Your task to perform on an android device: Add jbl charge 4 to the cart on walmart Image 0: 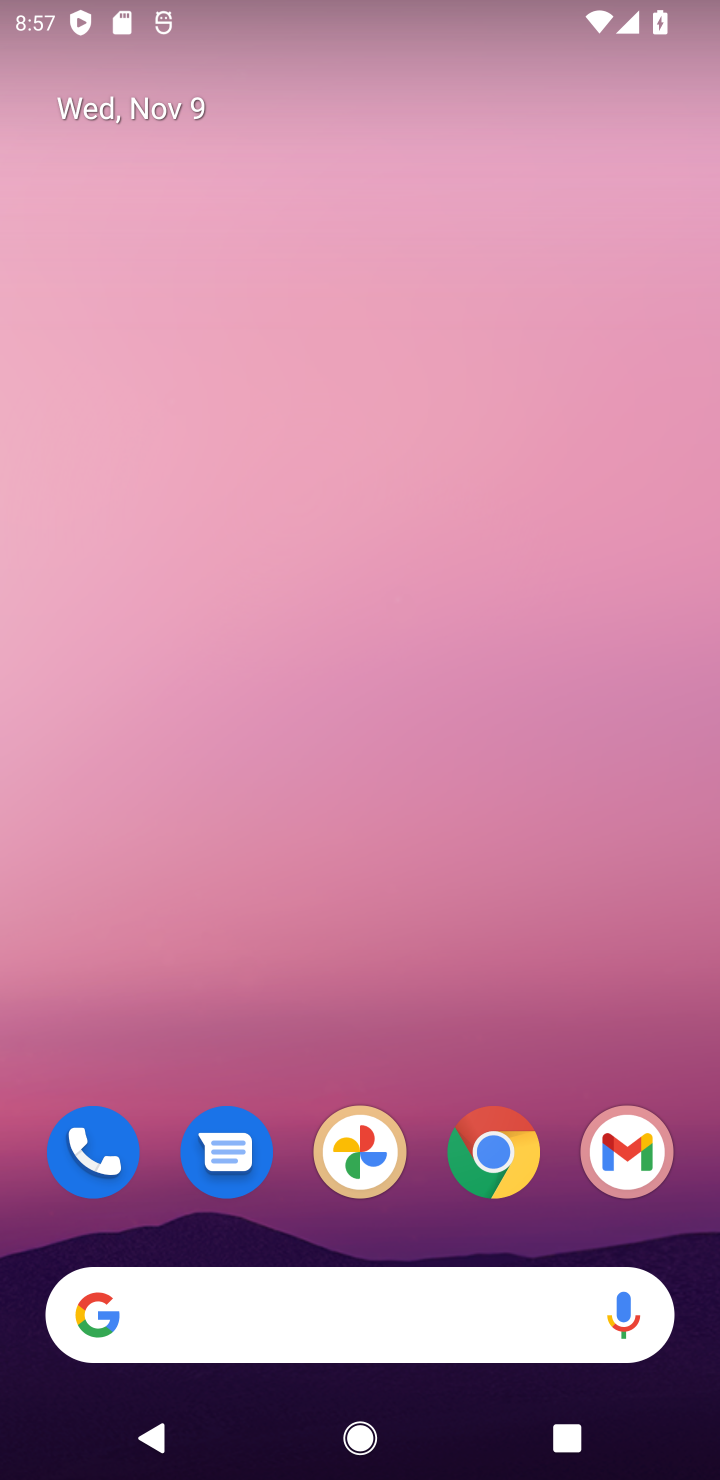
Step 0: click (477, 1146)
Your task to perform on an android device: Add jbl charge 4 to the cart on walmart Image 1: 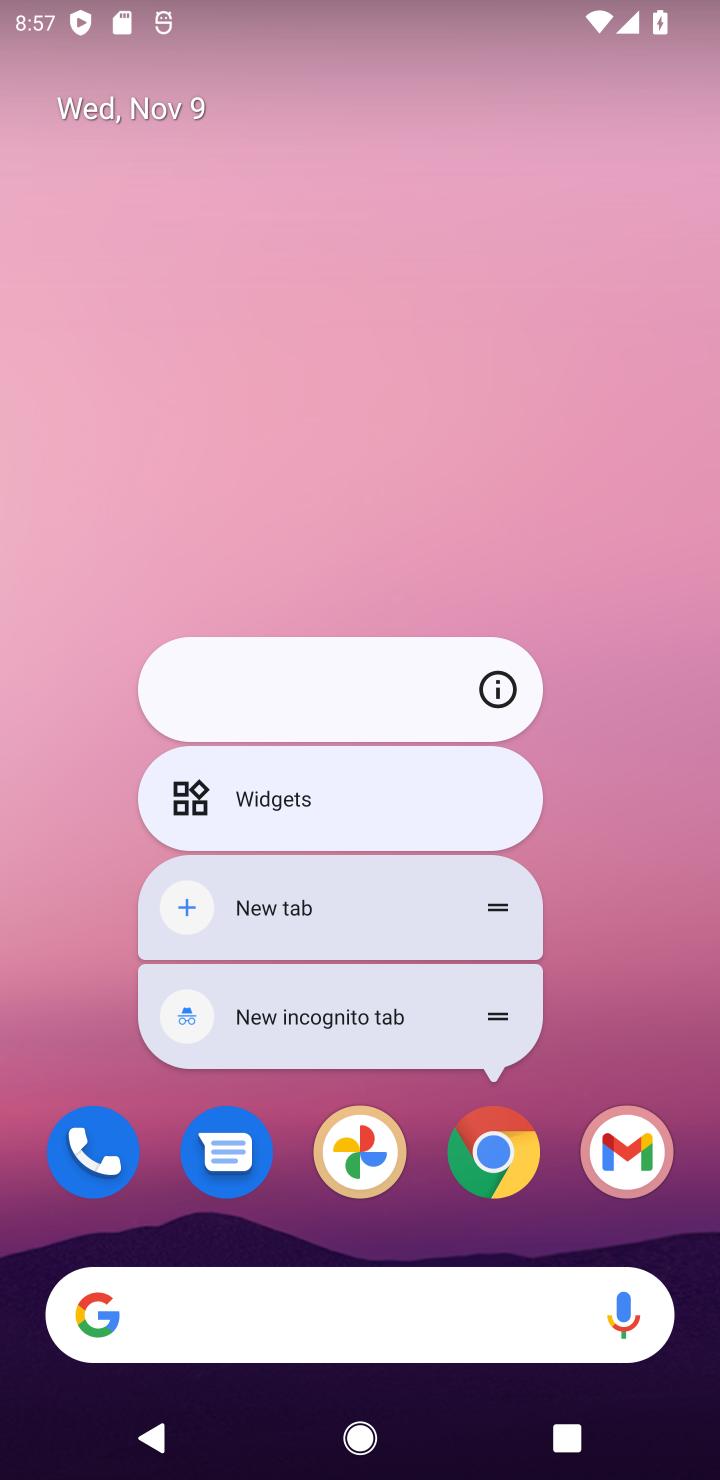
Step 1: click (477, 1153)
Your task to perform on an android device: Add jbl charge 4 to the cart on walmart Image 2: 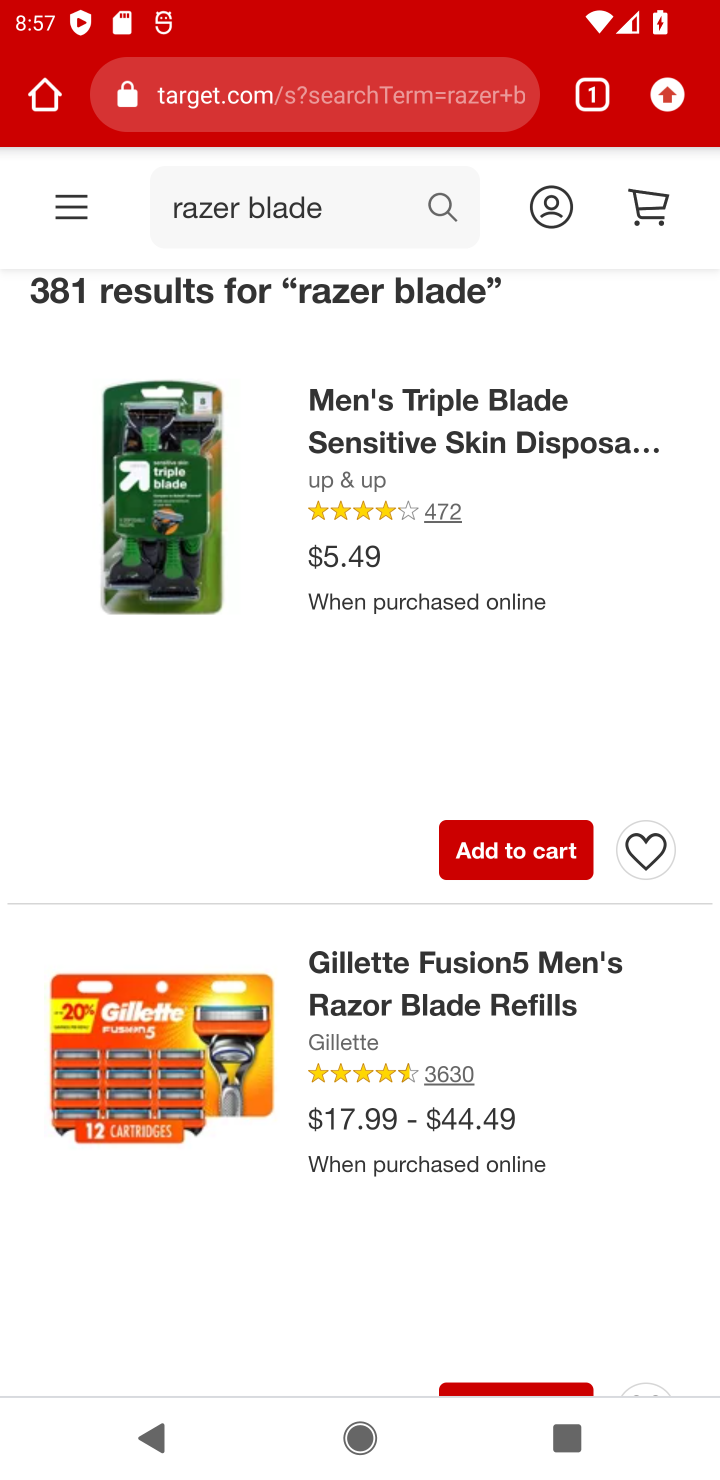
Step 2: click (144, 90)
Your task to perform on an android device: Add jbl charge 4 to the cart on walmart Image 3: 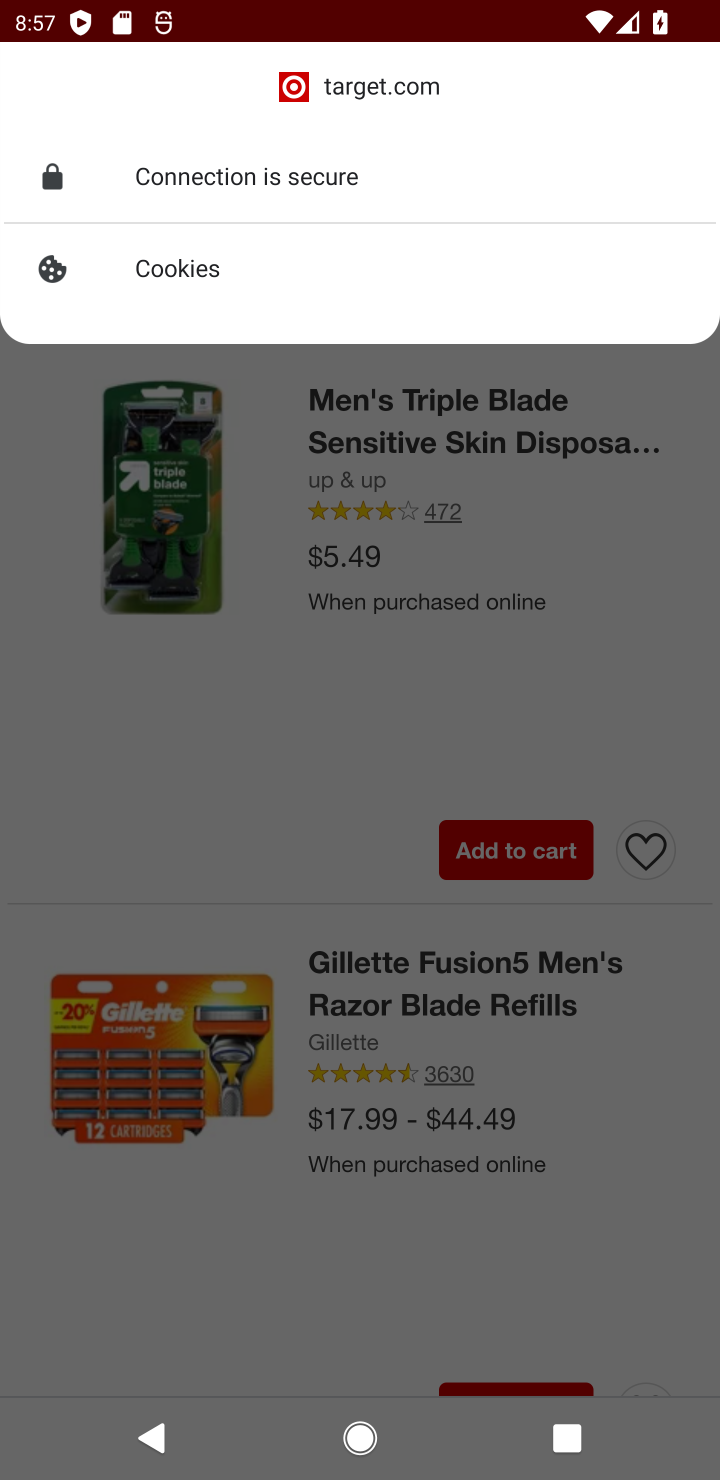
Step 3: drag from (62, 738) to (146, 294)
Your task to perform on an android device: Add jbl charge 4 to the cart on walmart Image 4: 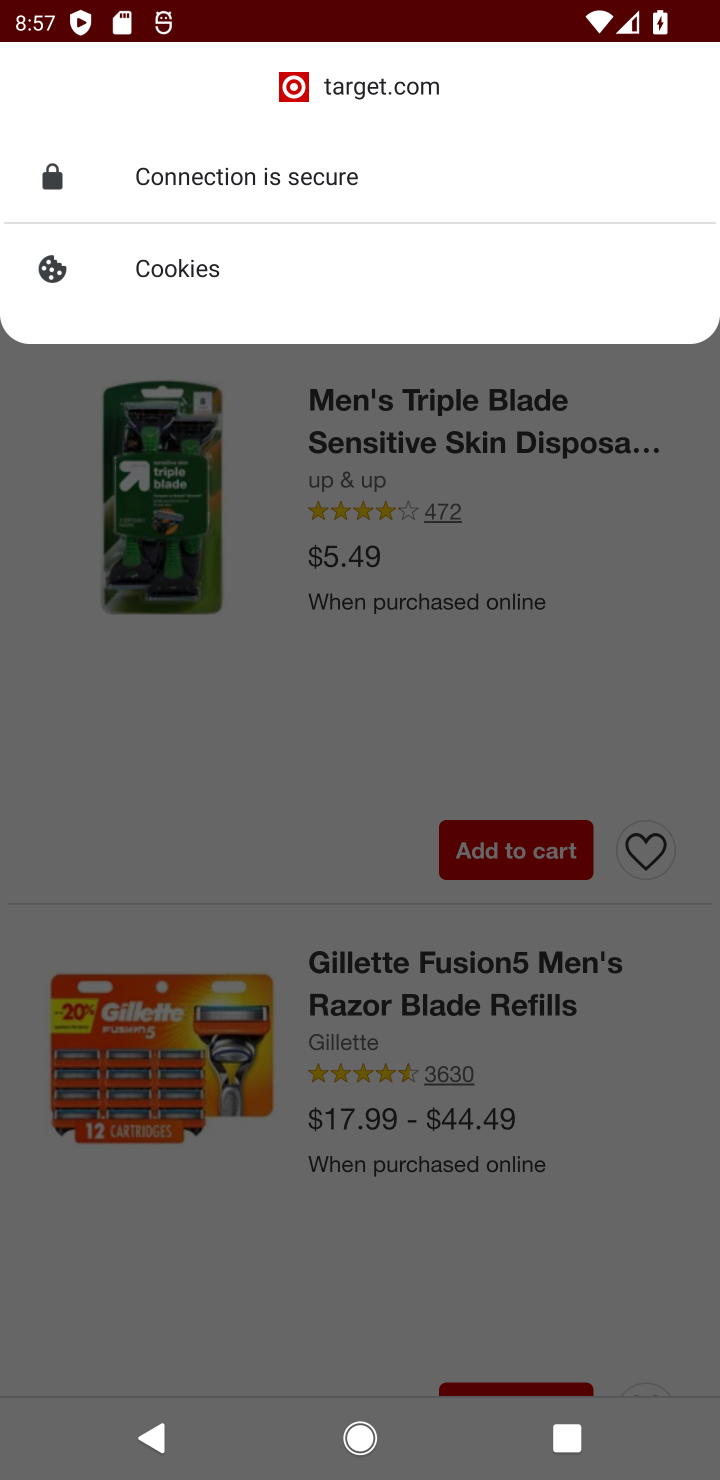
Step 4: click (677, 391)
Your task to perform on an android device: Add jbl charge 4 to the cart on walmart Image 5: 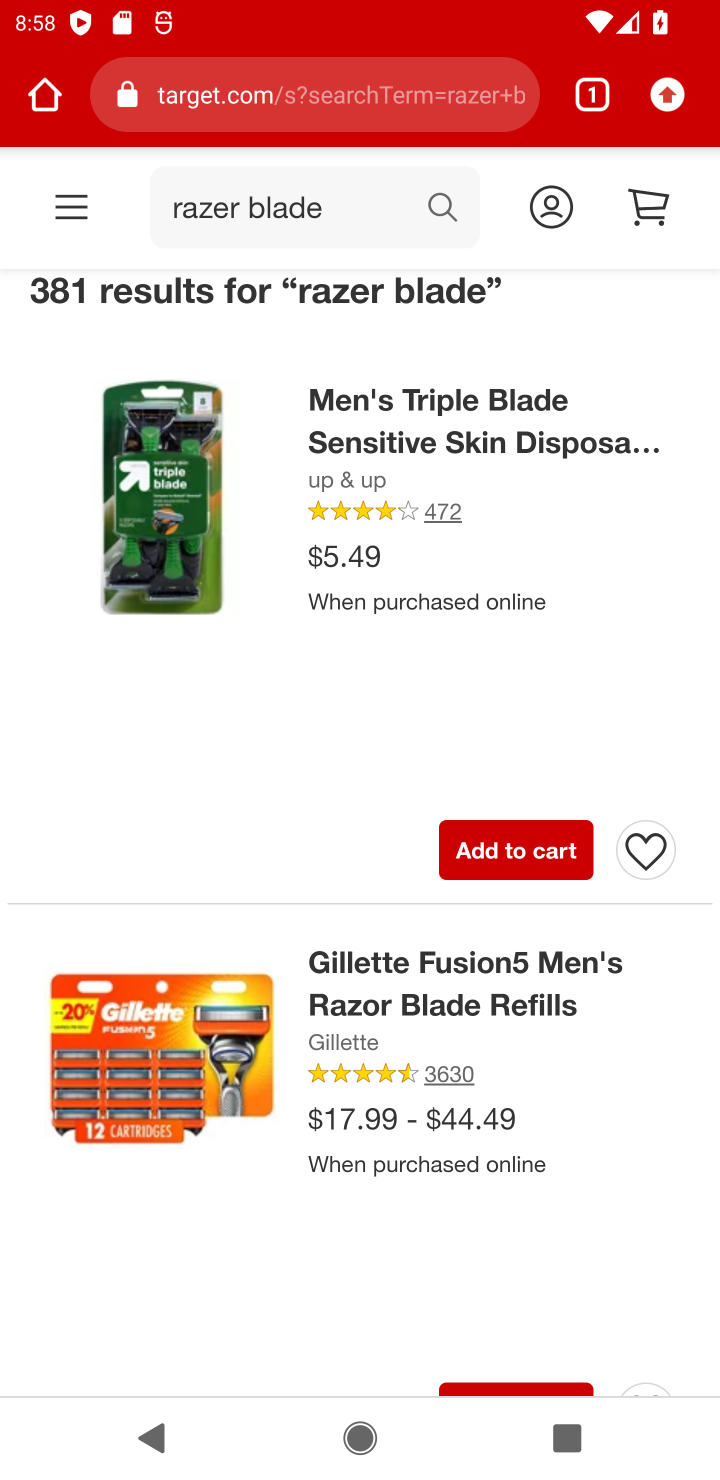
Step 5: click (424, 93)
Your task to perform on an android device: Add jbl charge 4 to the cart on walmart Image 6: 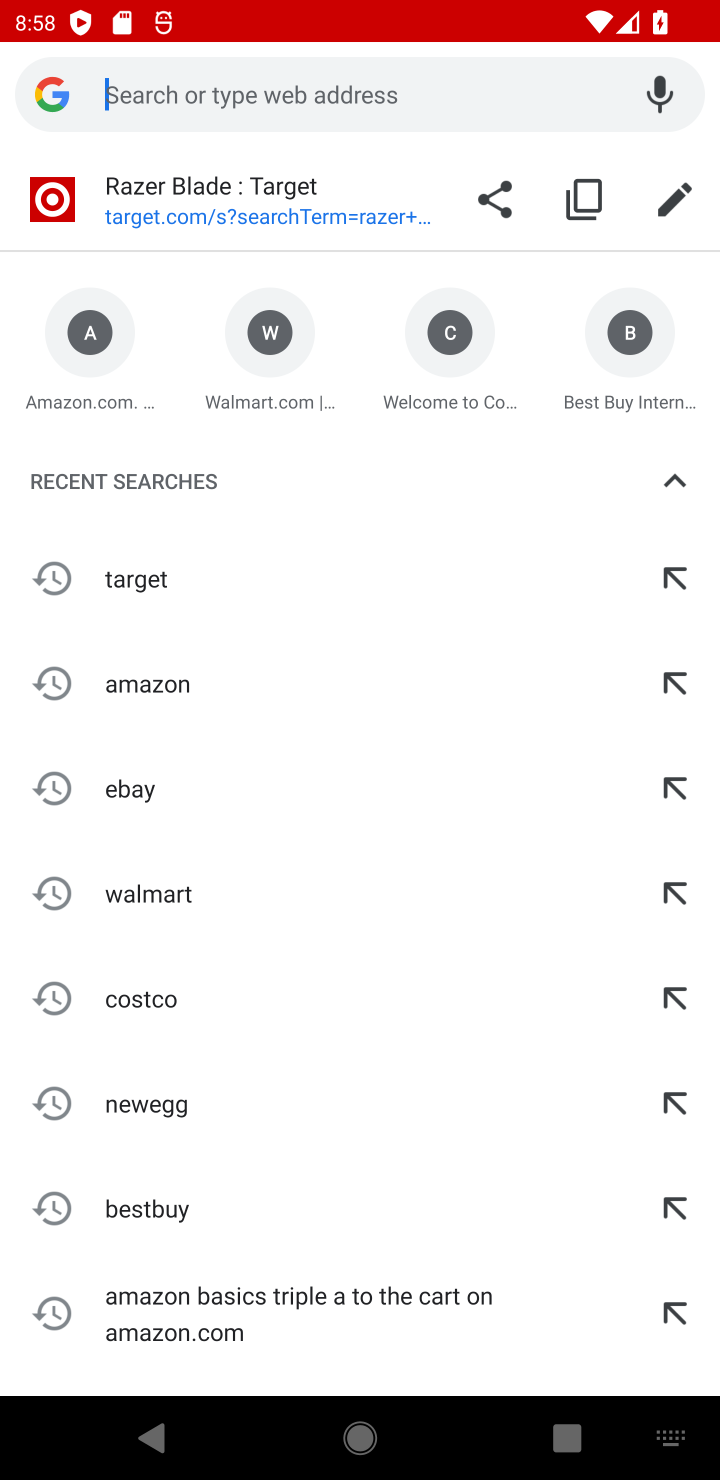
Step 6: click (142, 890)
Your task to perform on an android device: Add jbl charge 4 to the cart on walmart Image 7: 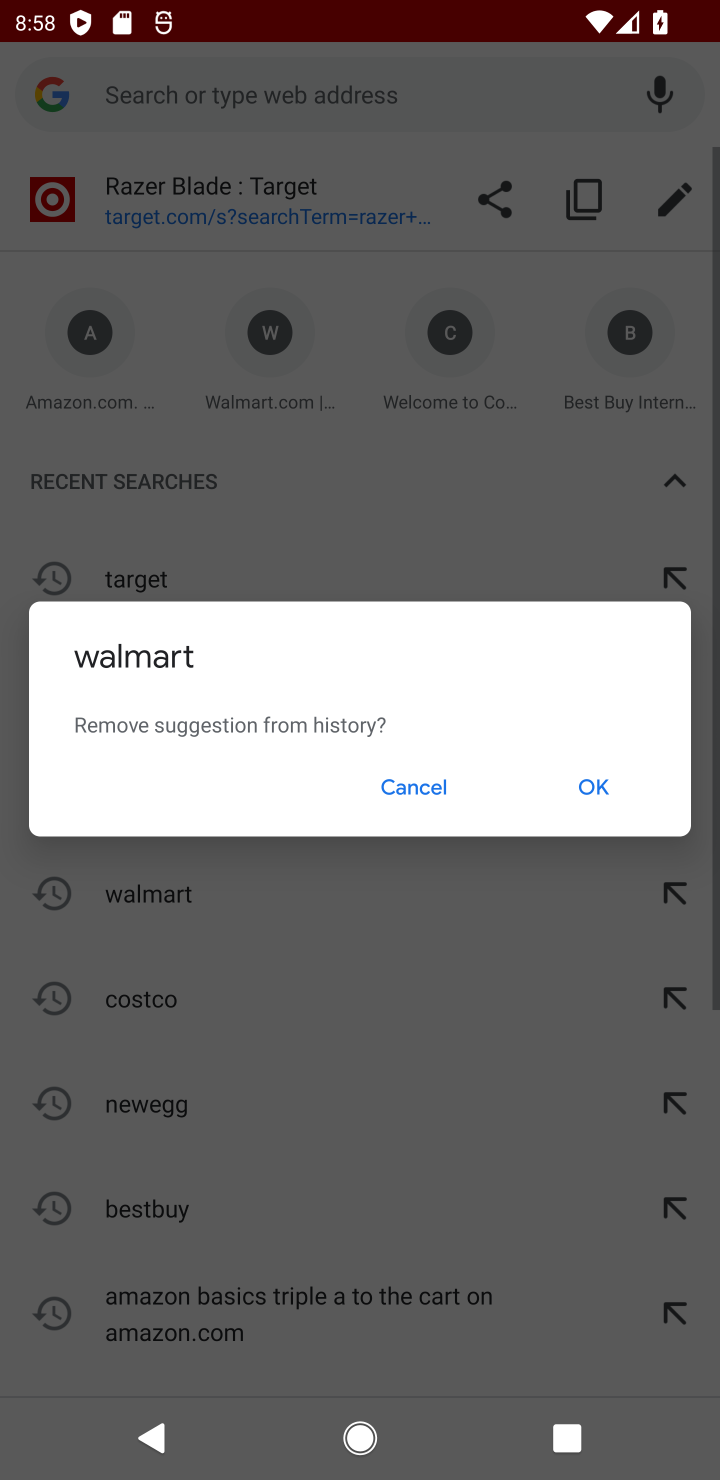
Step 7: click (401, 779)
Your task to perform on an android device: Add jbl charge 4 to the cart on walmart Image 8: 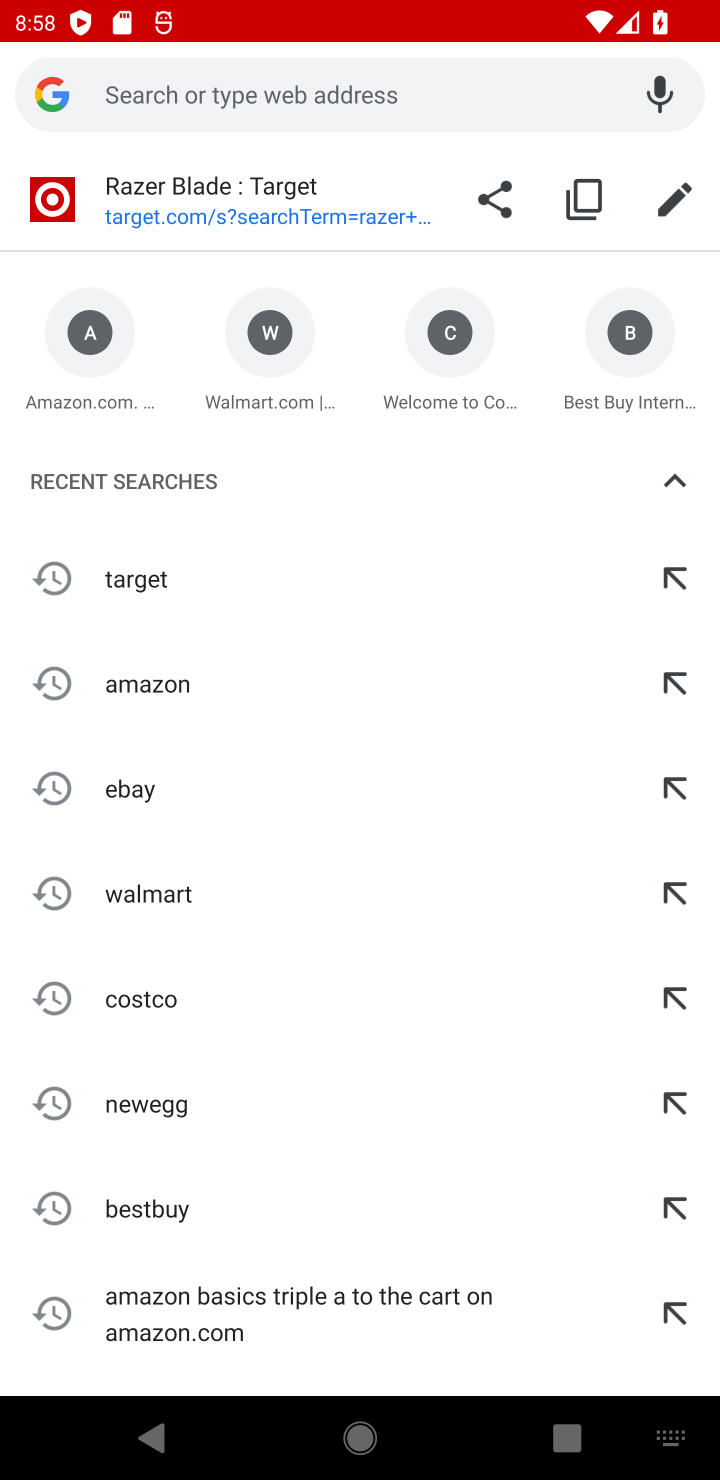
Step 8: click (108, 879)
Your task to perform on an android device: Add jbl charge 4 to the cart on walmart Image 9: 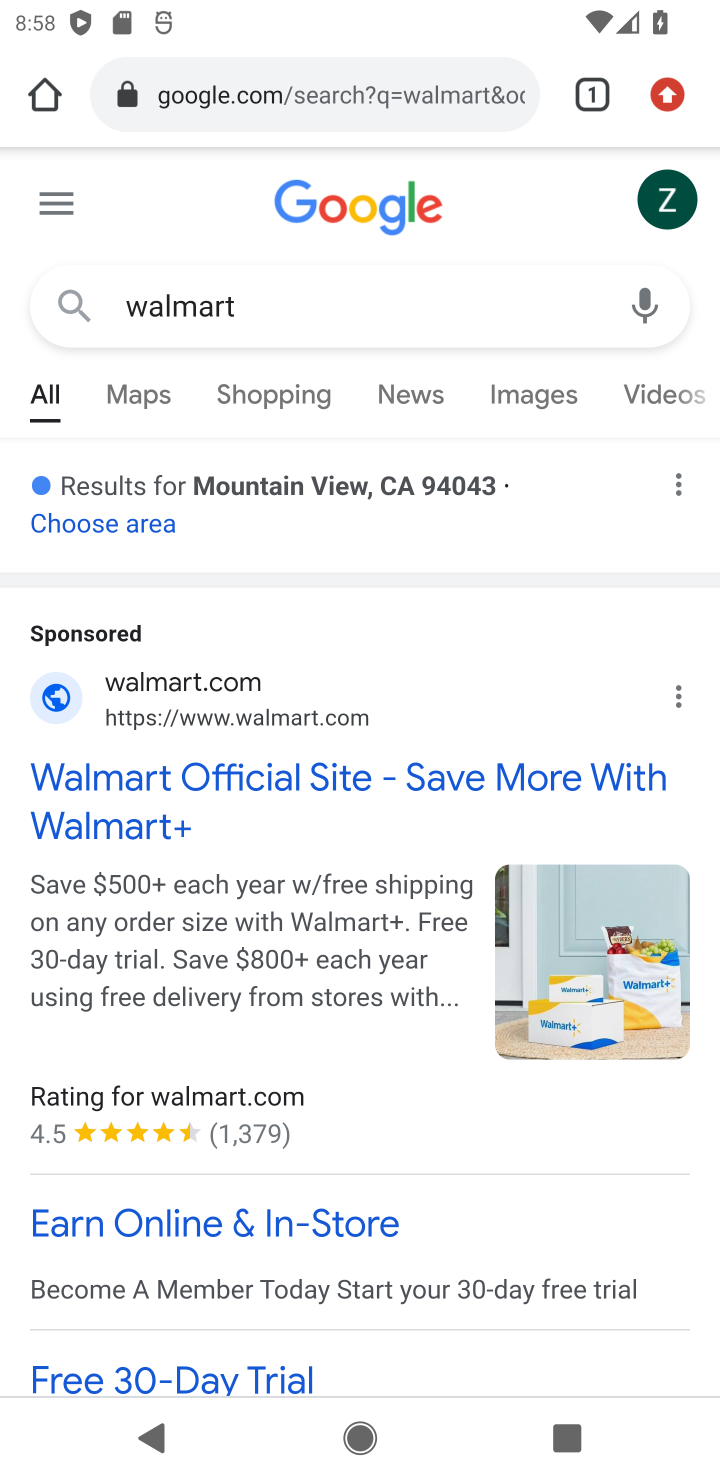
Step 9: click (322, 771)
Your task to perform on an android device: Add jbl charge 4 to the cart on walmart Image 10: 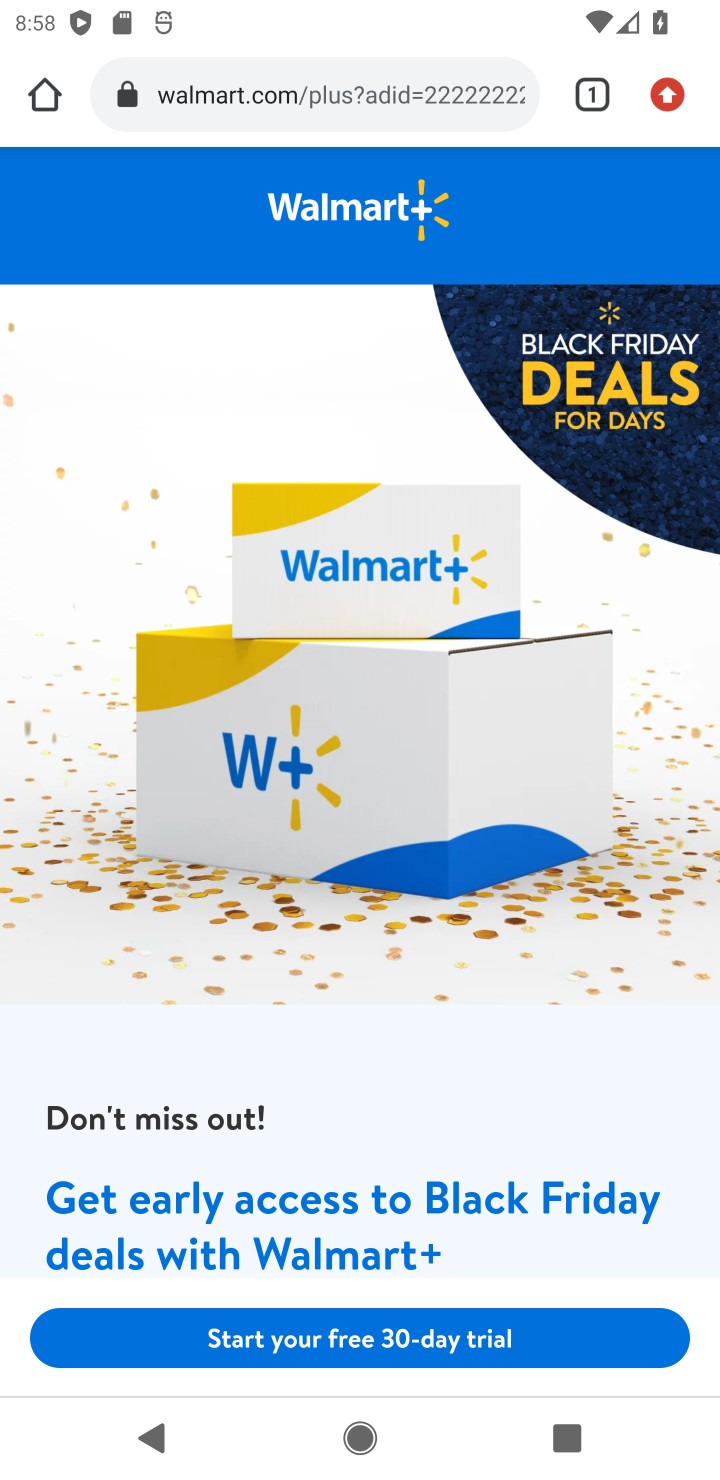
Step 10: drag from (386, 944) to (605, 379)
Your task to perform on an android device: Add jbl charge 4 to the cart on walmart Image 11: 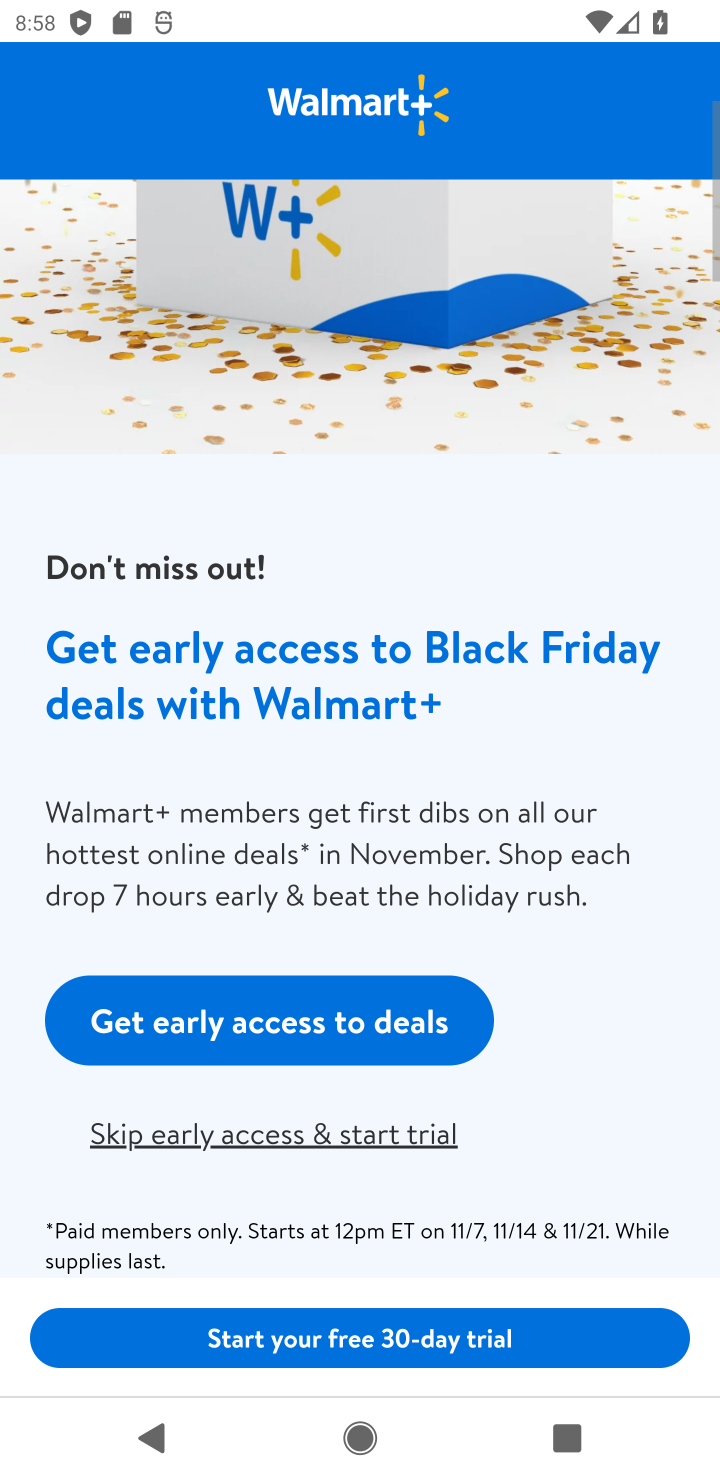
Step 11: click (425, 1335)
Your task to perform on an android device: Add jbl charge 4 to the cart on walmart Image 12: 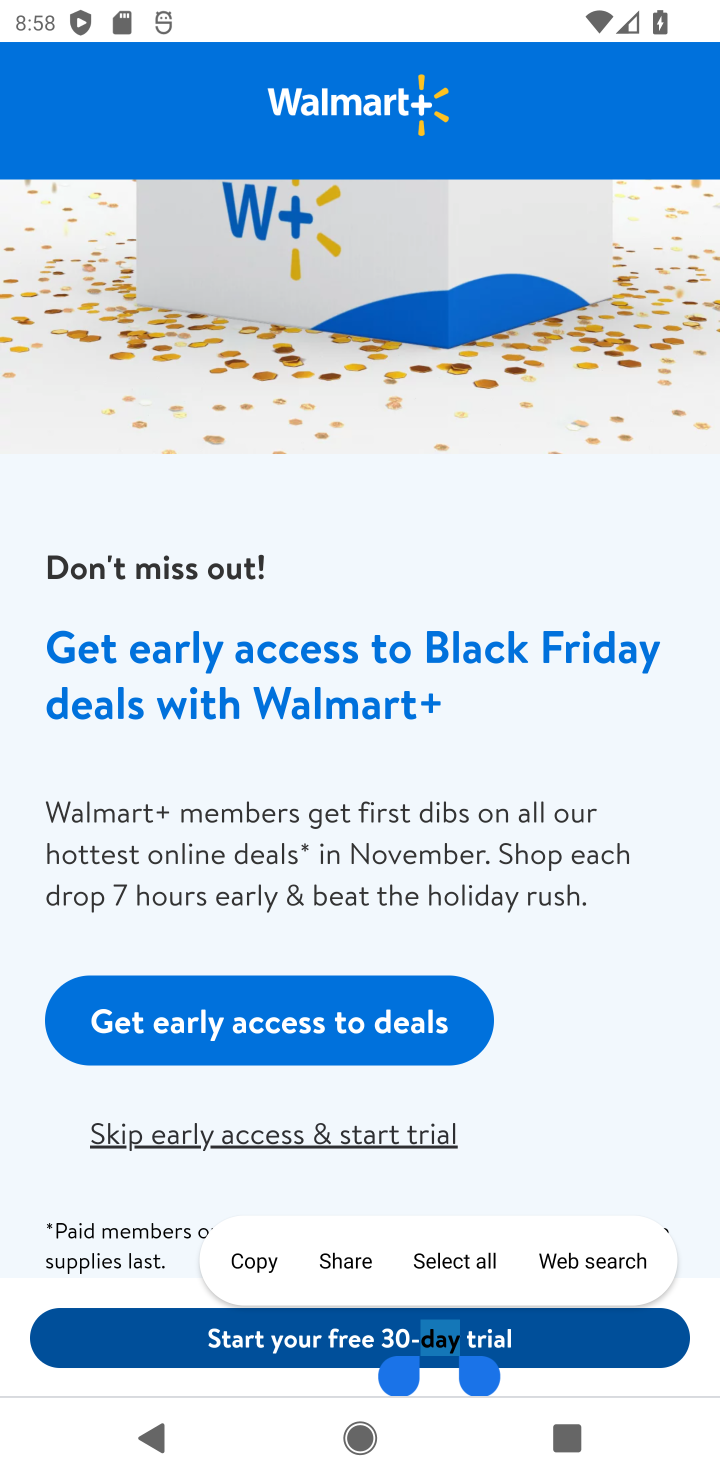
Step 12: click (326, 1353)
Your task to perform on an android device: Add jbl charge 4 to the cart on walmart Image 13: 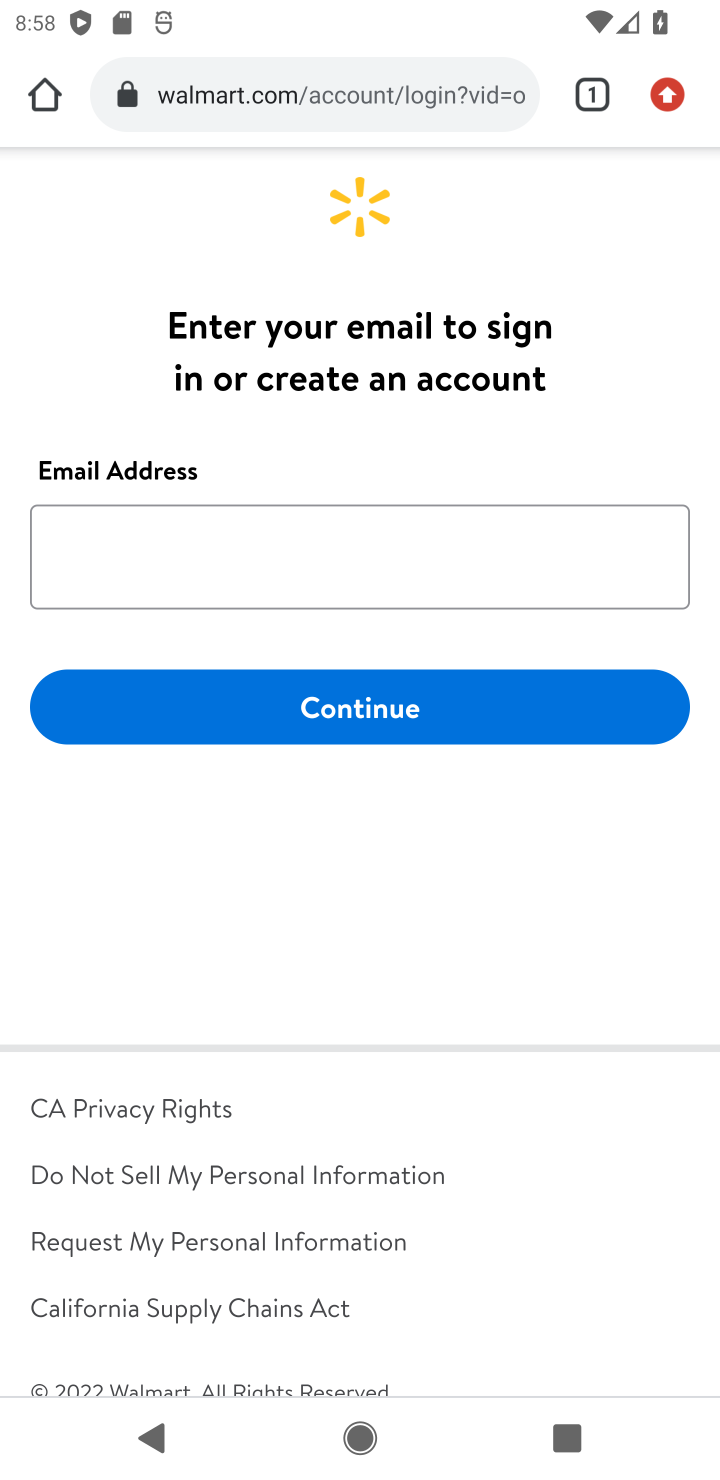
Step 13: press back button
Your task to perform on an android device: Add jbl charge 4 to the cart on walmart Image 14: 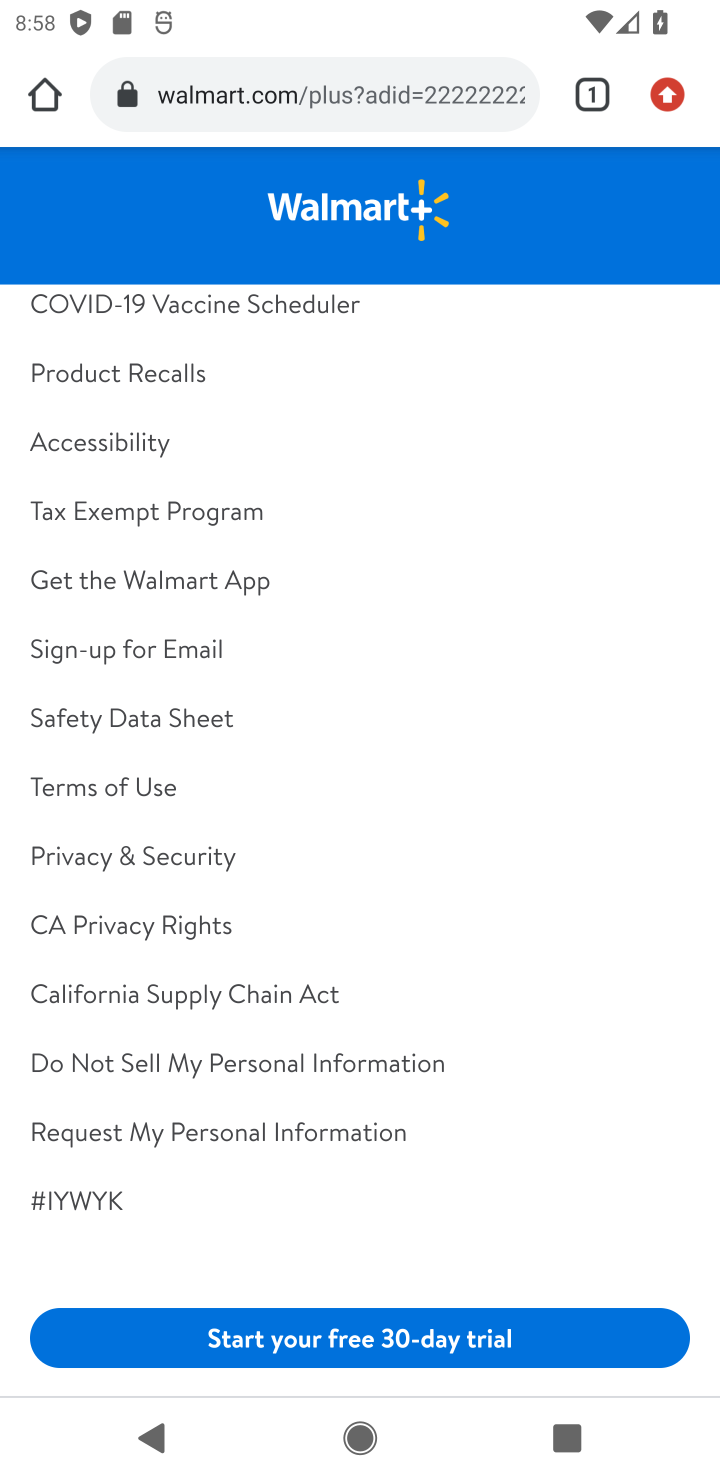
Step 14: press back button
Your task to perform on an android device: Add jbl charge 4 to the cart on walmart Image 15: 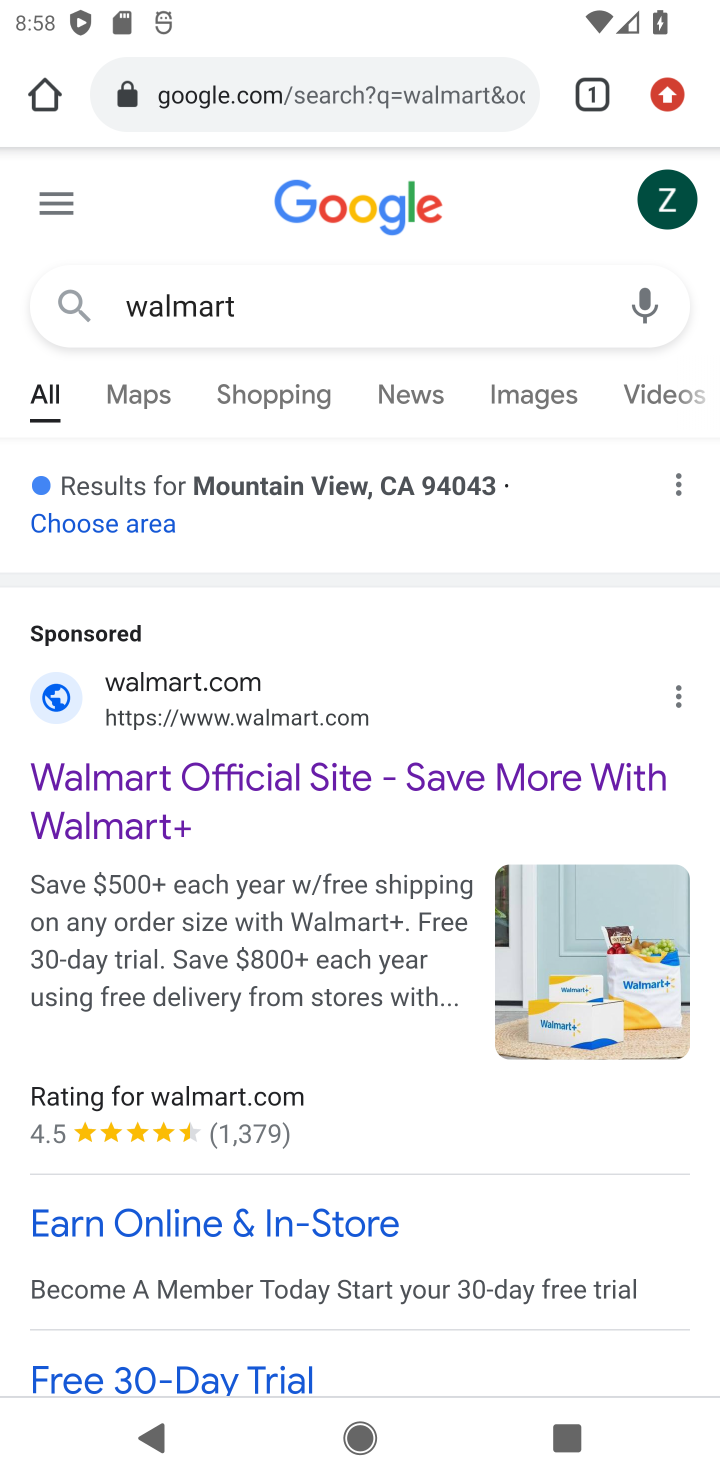
Step 15: drag from (294, 1074) to (622, 277)
Your task to perform on an android device: Add jbl charge 4 to the cart on walmart Image 16: 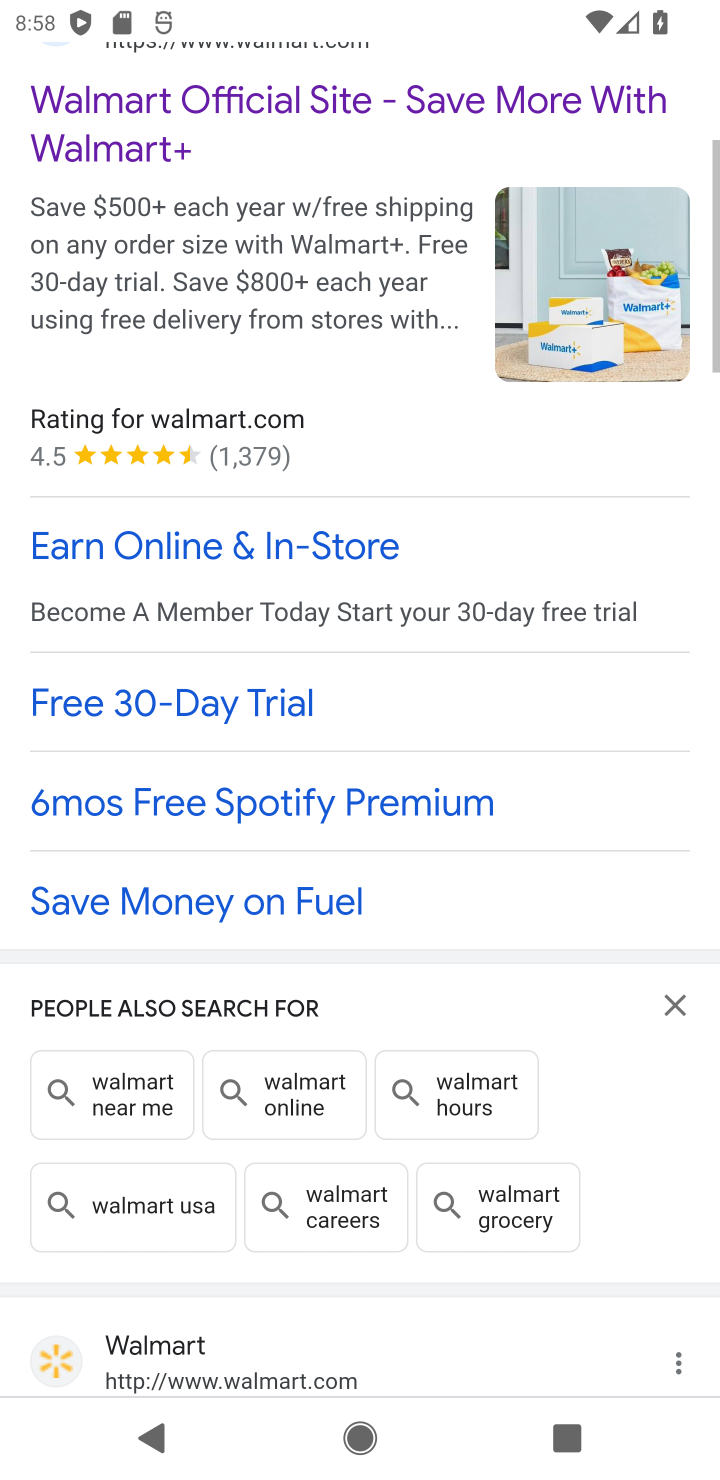
Step 16: drag from (312, 1251) to (595, 373)
Your task to perform on an android device: Add jbl charge 4 to the cart on walmart Image 17: 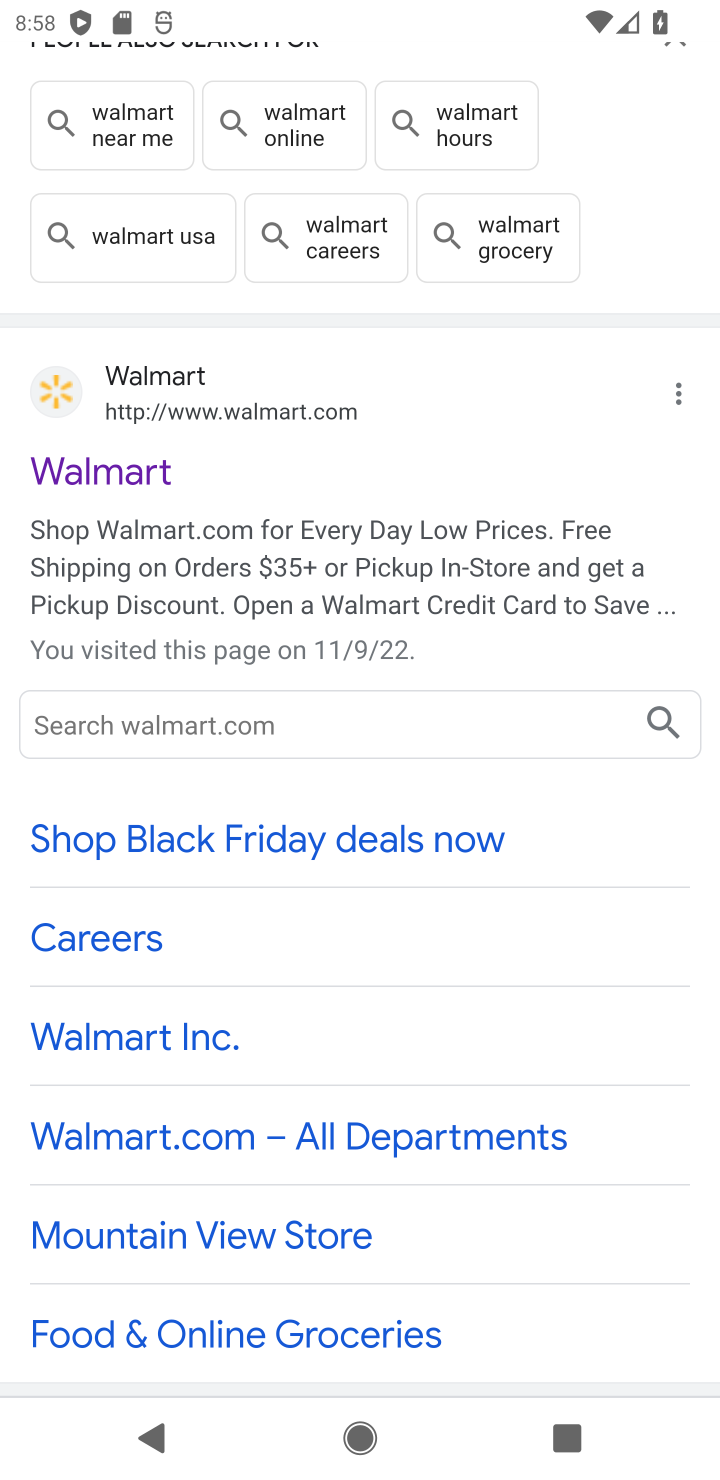
Step 17: click (121, 468)
Your task to perform on an android device: Add jbl charge 4 to the cart on walmart Image 18: 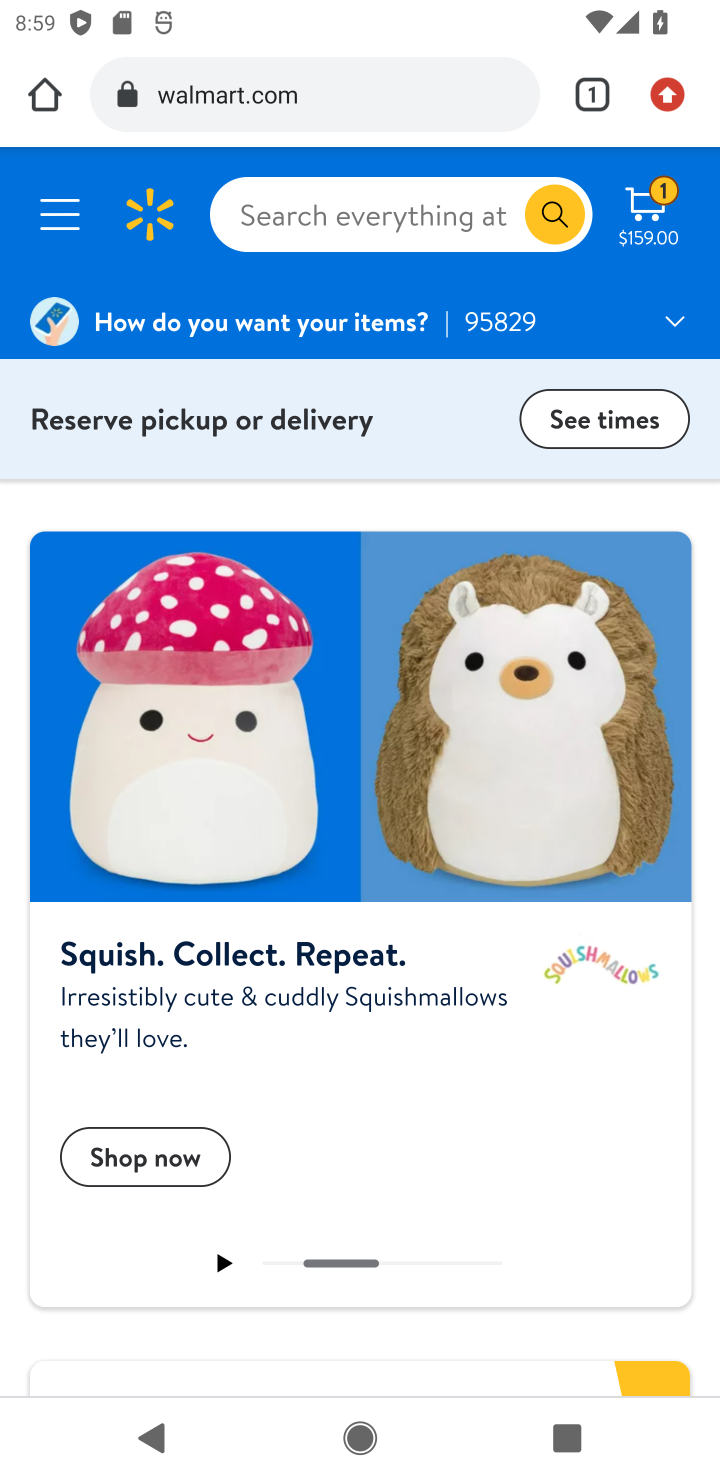
Step 18: click (397, 208)
Your task to perform on an android device: Add jbl charge 4 to the cart on walmart Image 19: 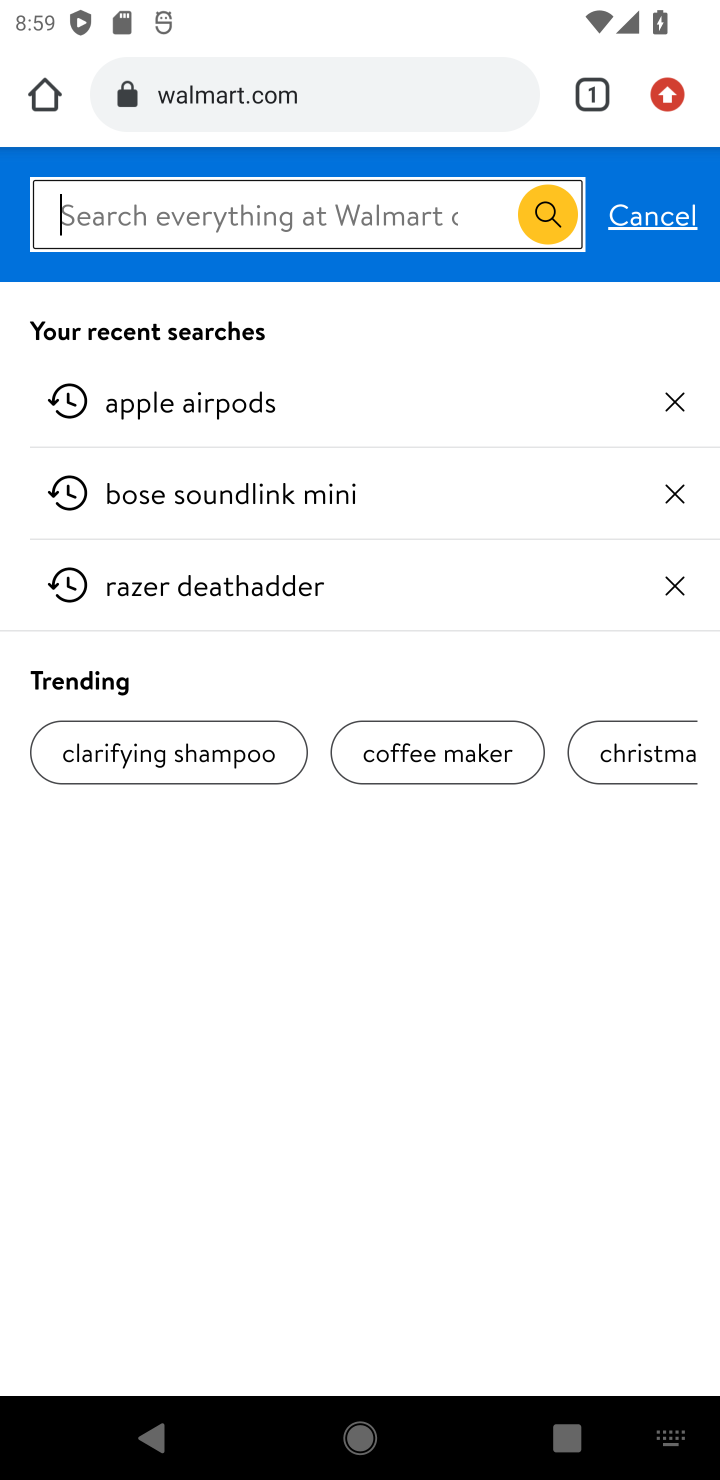
Step 19: type " jbl charge 4"
Your task to perform on an android device: Add jbl charge 4 to the cart on walmart Image 20: 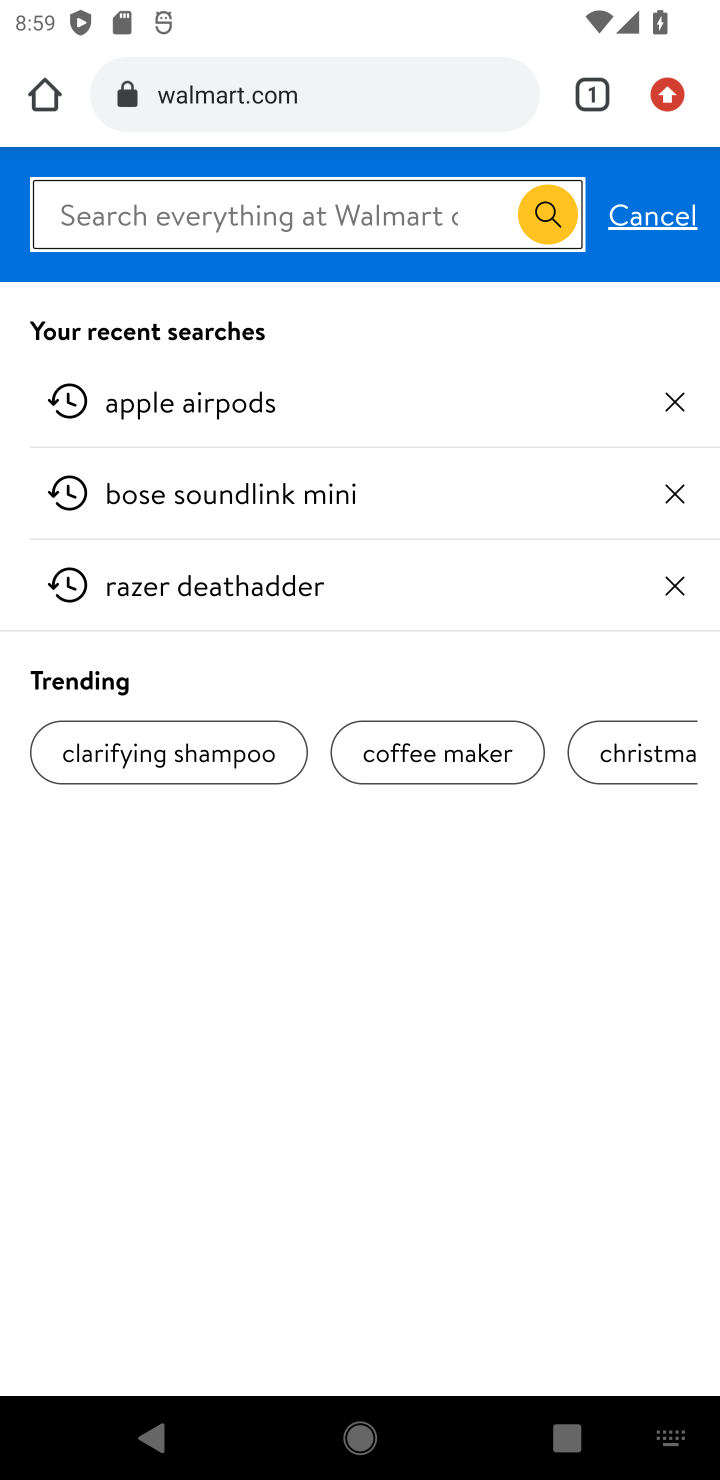
Step 20: press enter
Your task to perform on an android device: Add jbl charge 4 to the cart on walmart Image 21: 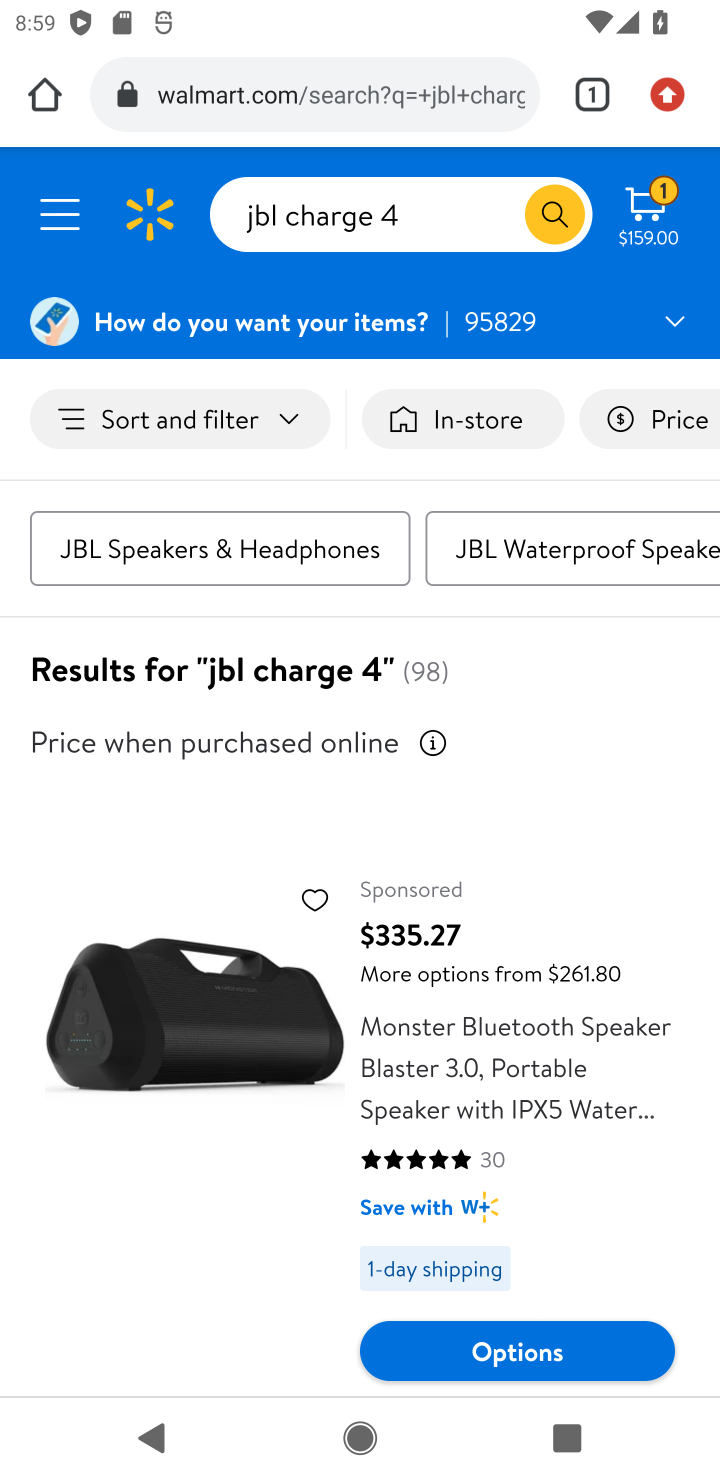
Step 21: click (440, 1035)
Your task to perform on an android device: Add jbl charge 4 to the cart on walmart Image 22: 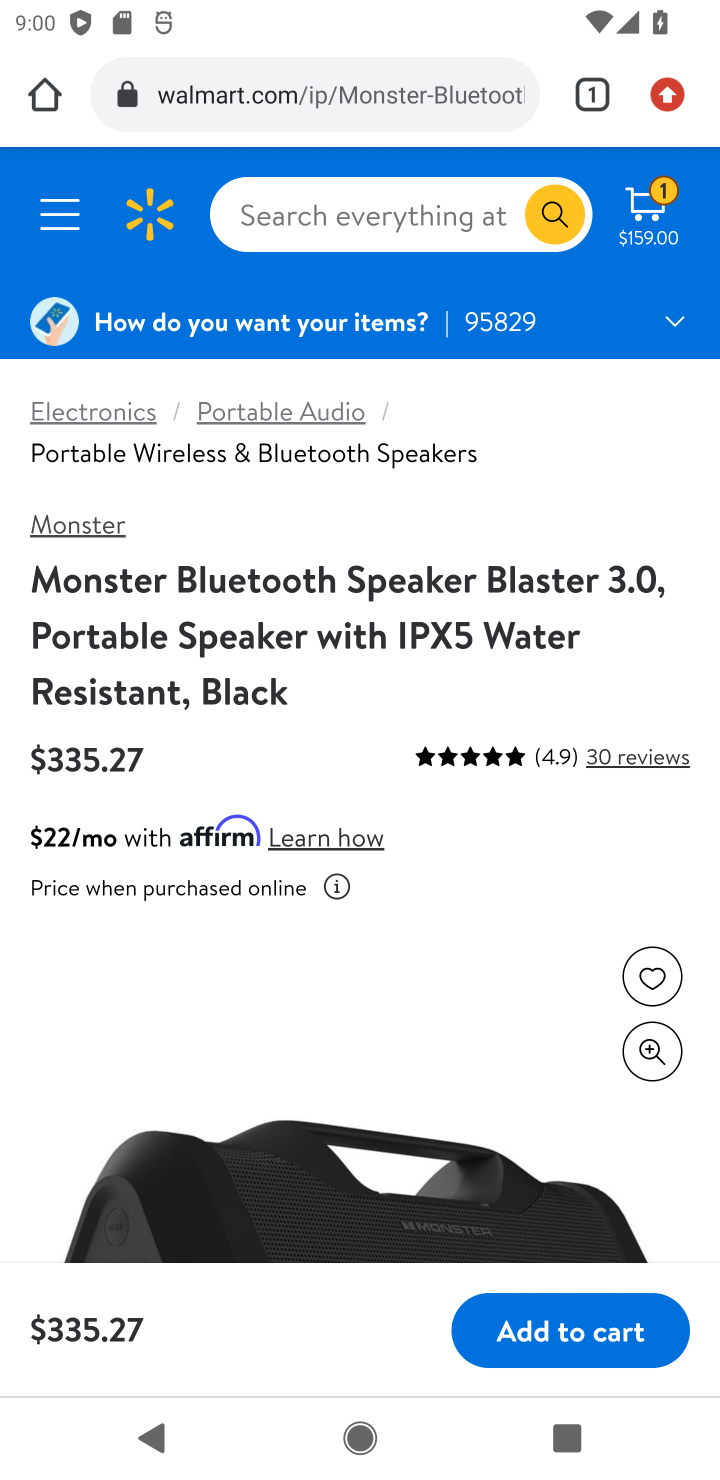
Step 22: task complete